Your task to perform on an android device: Open ESPN.com Image 0: 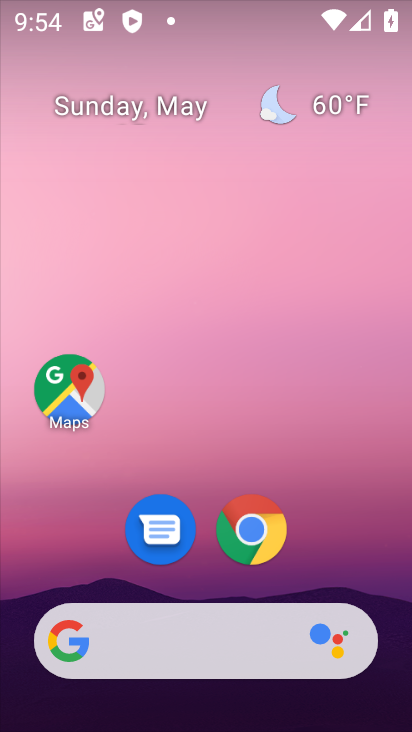
Step 0: drag from (380, 576) to (374, 198)
Your task to perform on an android device: Open ESPN.com Image 1: 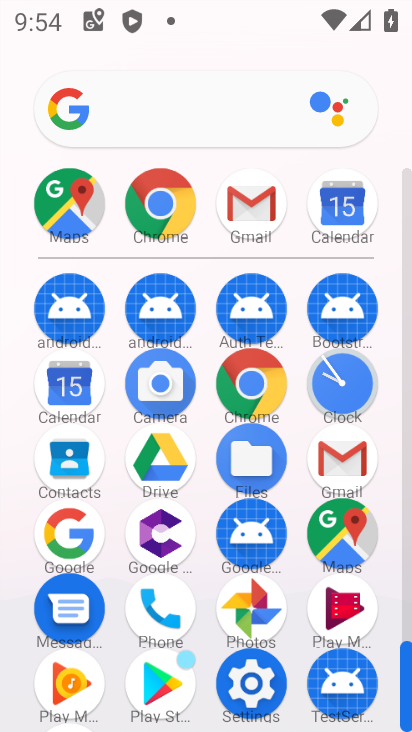
Step 1: click (268, 390)
Your task to perform on an android device: Open ESPN.com Image 2: 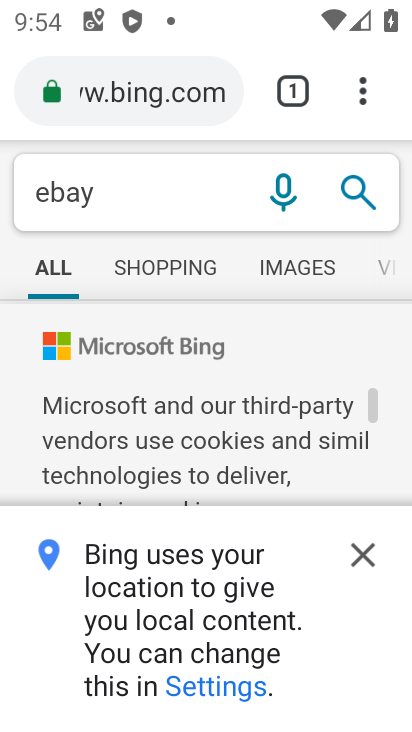
Step 2: click (183, 92)
Your task to perform on an android device: Open ESPN.com Image 3: 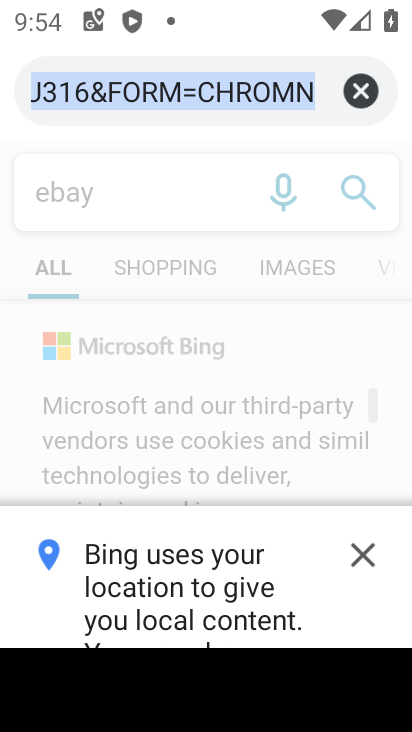
Step 3: type "espn.com"
Your task to perform on an android device: Open ESPN.com Image 4: 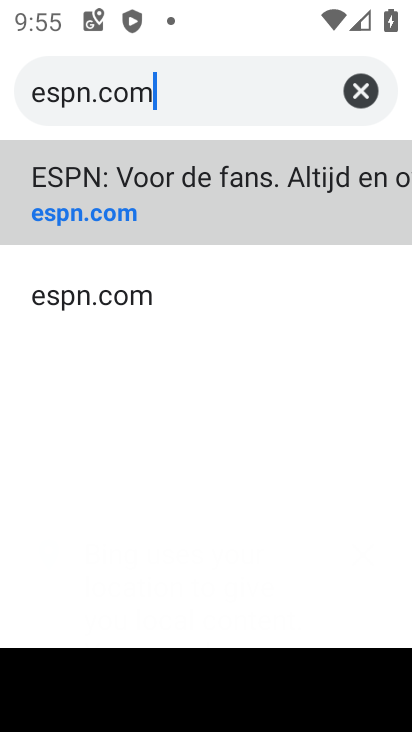
Step 4: click (209, 216)
Your task to perform on an android device: Open ESPN.com Image 5: 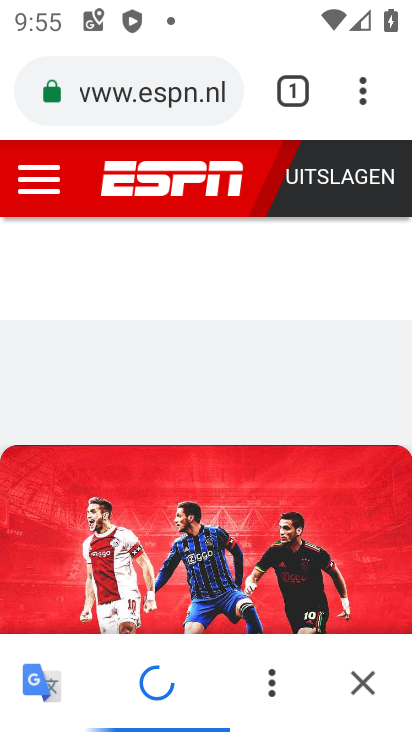
Step 5: task complete